Your task to perform on an android device: turn off airplane mode Image 0: 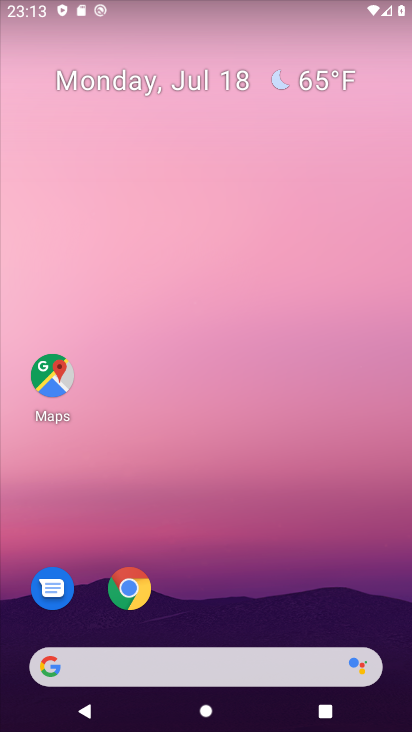
Step 0: press home button
Your task to perform on an android device: turn off airplane mode Image 1: 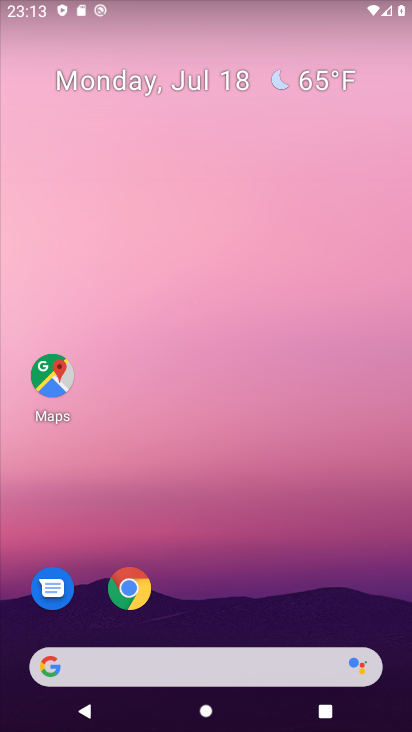
Step 1: task complete